Your task to perform on an android device: turn vacation reply on in the gmail app Image 0: 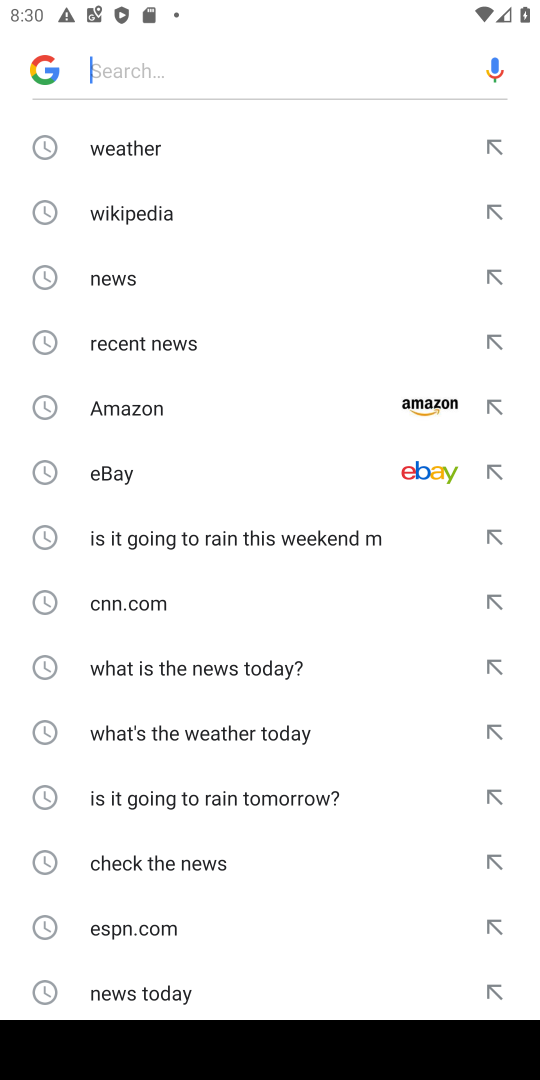
Step 0: press home button
Your task to perform on an android device: turn vacation reply on in the gmail app Image 1: 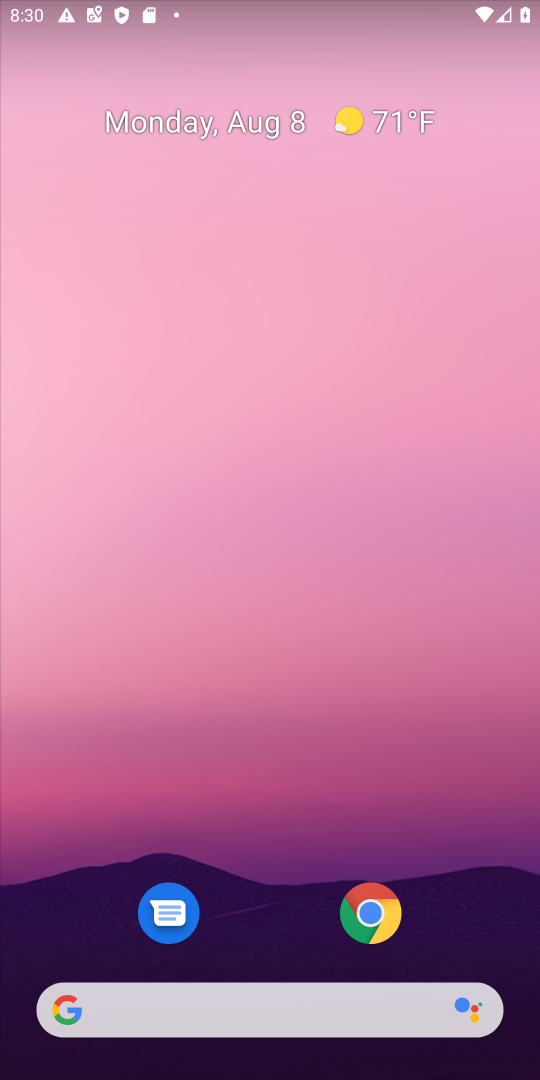
Step 1: drag from (247, 995) to (353, 326)
Your task to perform on an android device: turn vacation reply on in the gmail app Image 2: 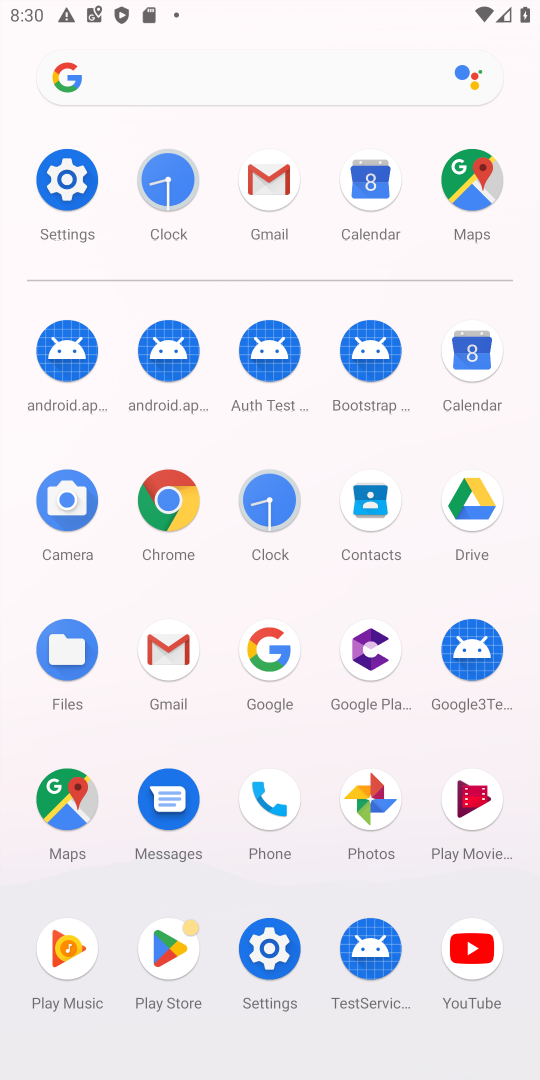
Step 2: click (266, 179)
Your task to perform on an android device: turn vacation reply on in the gmail app Image 3: 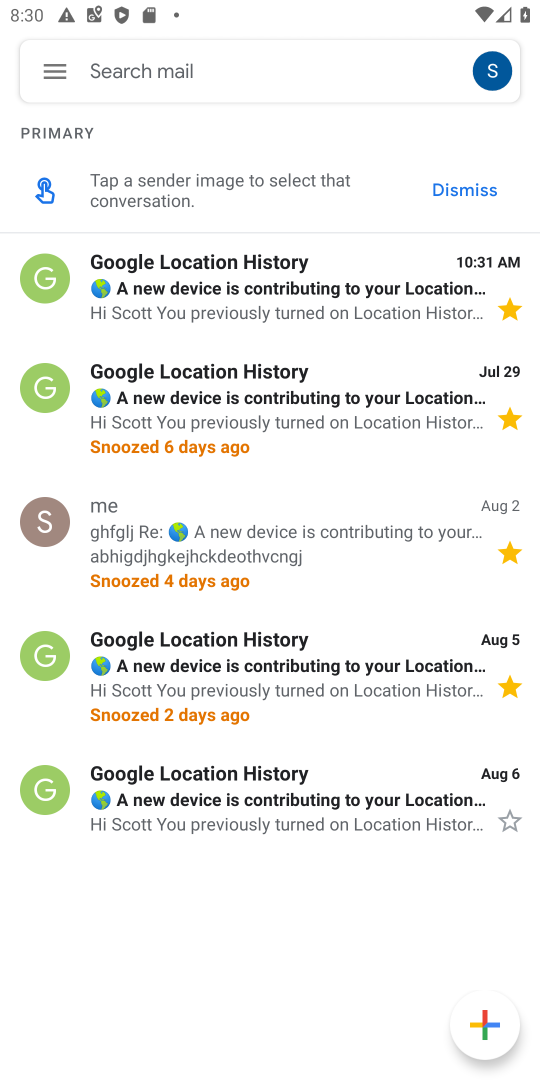
Step 3: click (55, 70)
Your task to perform on an android device: turn vacation reply on in the gmail app Image 4: 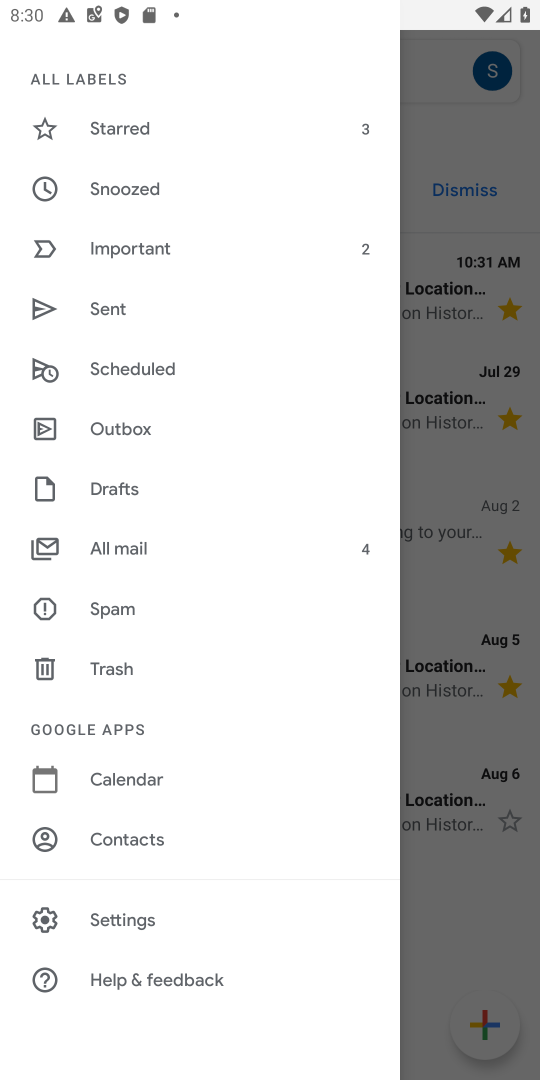
Step 4: click (119, 926)
Your task to perform on an android device: turn vacation reply on in the gmail app Image 5: 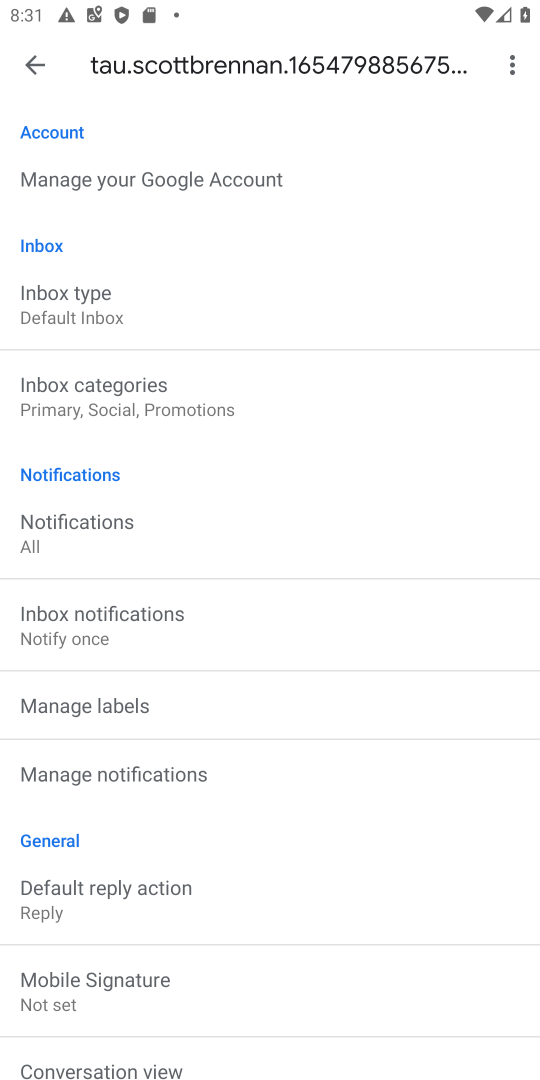
Step 5: drag from (172, 993) to (235, 778)
Your task to perform on an android device: turn vacation reply on in the gmail app Image 6: 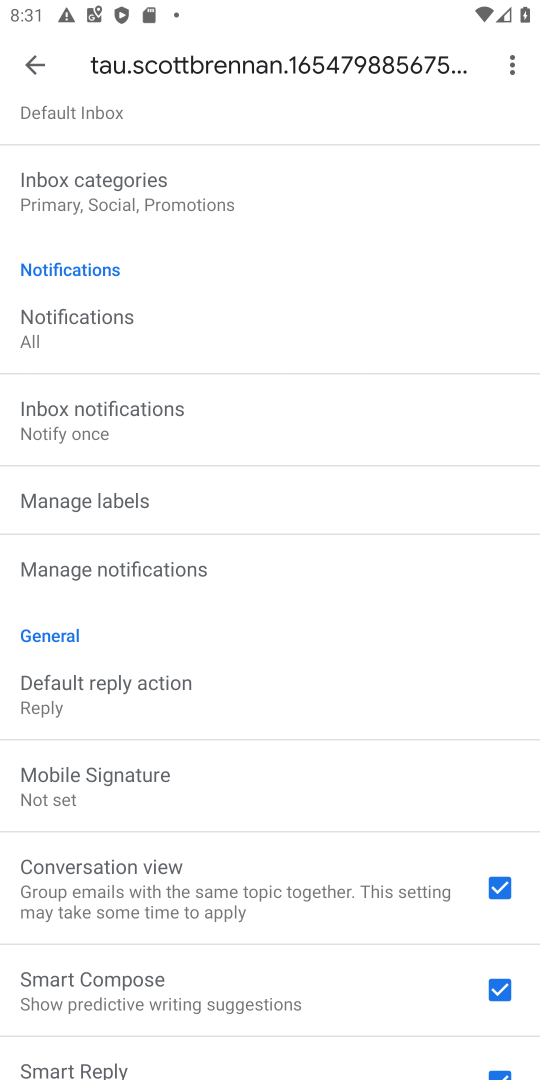
Step 6: drag from (219, 951) to (272, 768)
Your task to perform on an android device: turn vacation reply on in the gmail app Image 7: 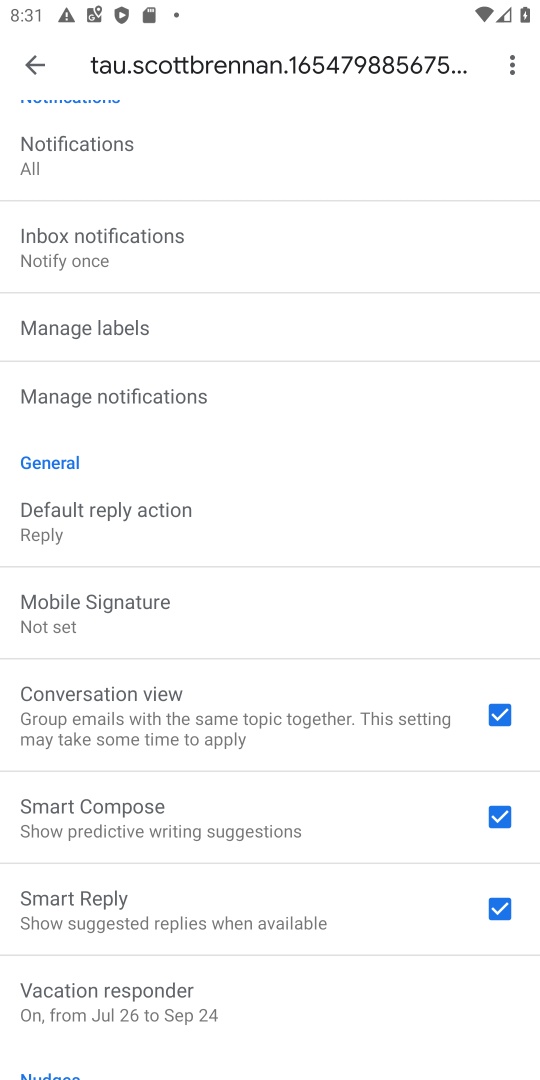
Step 7: drag from (168, 921) to (336, 604)
Your task to perform on an android device: turn vacation reply on in the gmail app Image 8: 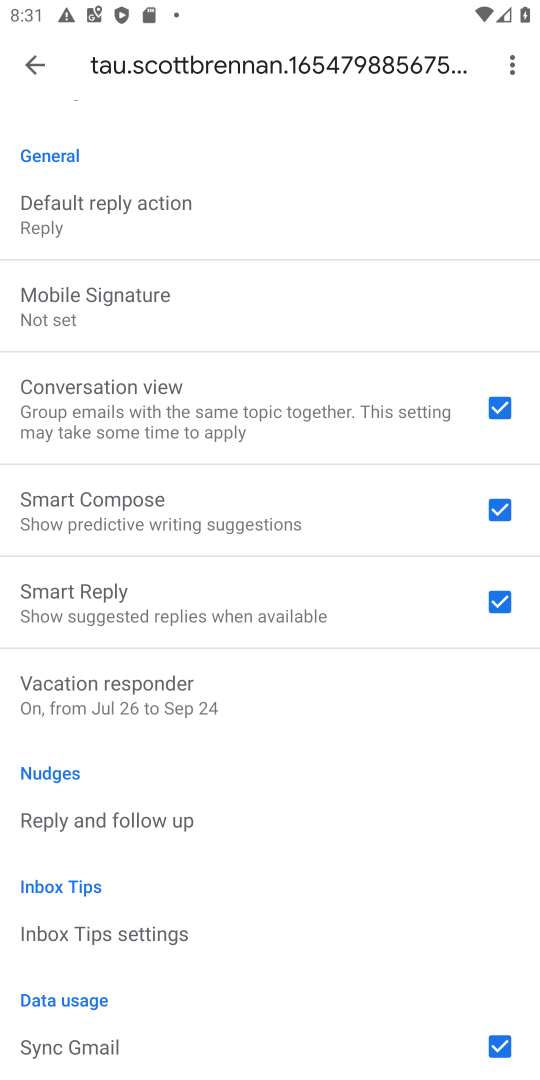
Step 8: click (179, 713)
Your task to perform on an android device: turn vacation reply on in the gmail app Image 9: 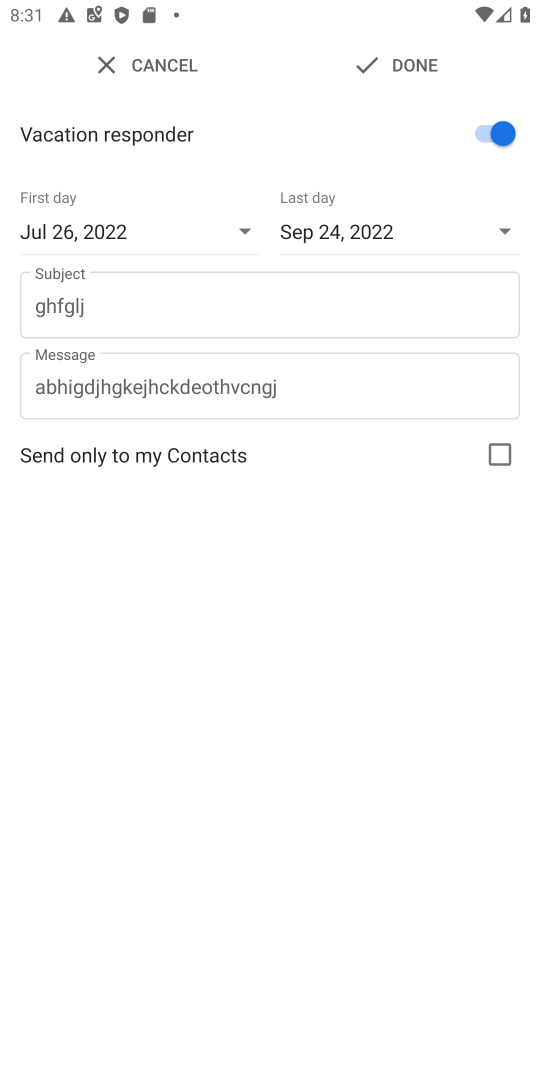
Step 9: task complete